Your task to perform on an android device: turn off notifications settings in the gmail app Image 0: 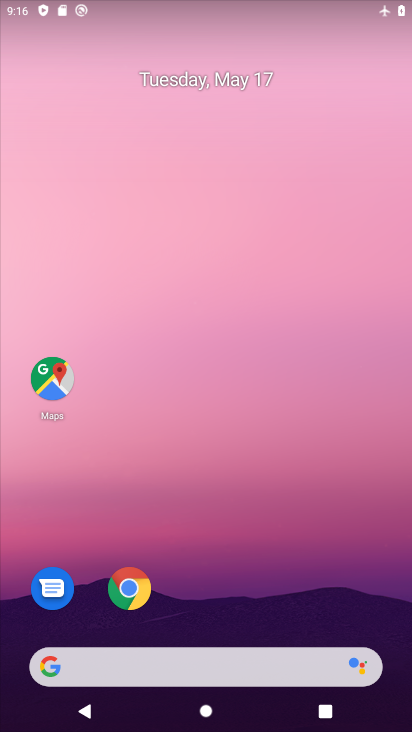
Step 0: drag from (221, 728) to (194, 209)
Your task to perform on an android device: turn off notifications settings in the gmail app Image 1: 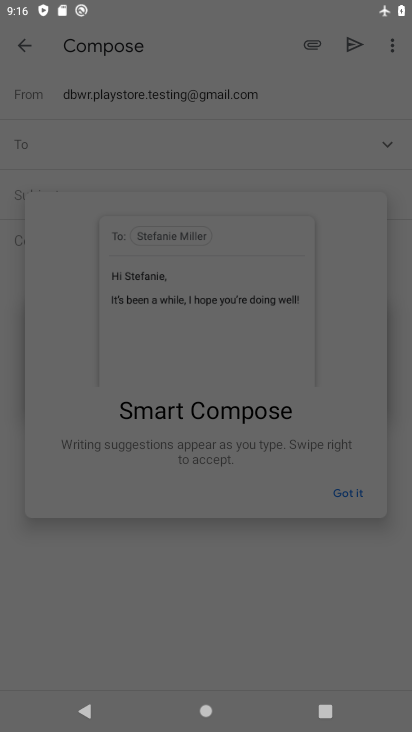
Step 1: press home button
Your task to perform on an android device: turn off notifications settings in the gmail app Image 2: 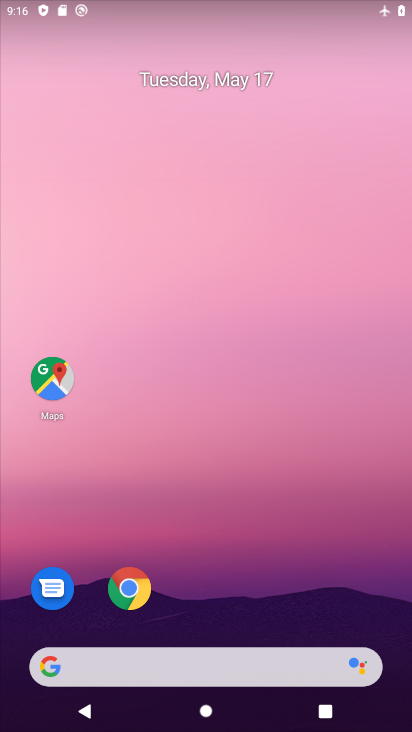
Step 2: drag from (225, 725) to (224, 120)
Your task to perform on an android device: turn off notifications settings in the gmail app Image 3: 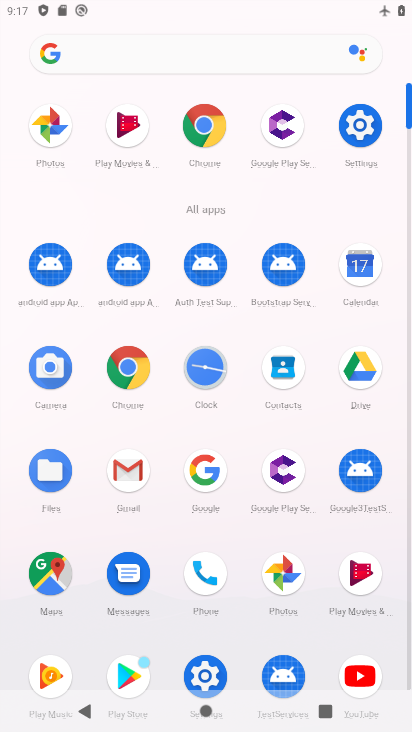
Step 3: click (129, 479)
Your task to perform on an android device: turn off notifications settings in the gmail app Image 4: 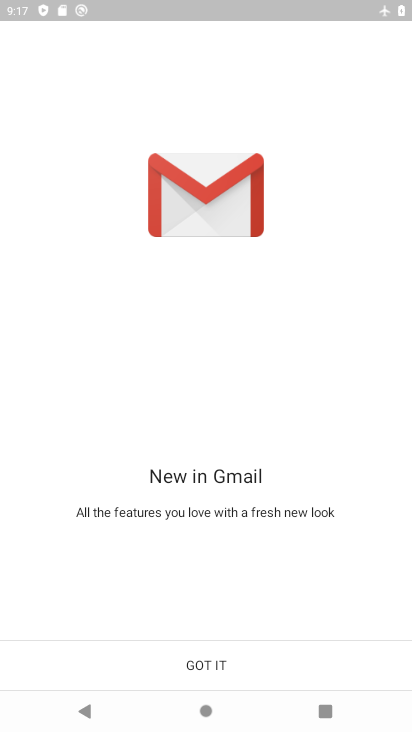
Step 4: click (206, 662)
Your task to perform on an android device: turn off notifications settings in the gmail app Image 5: 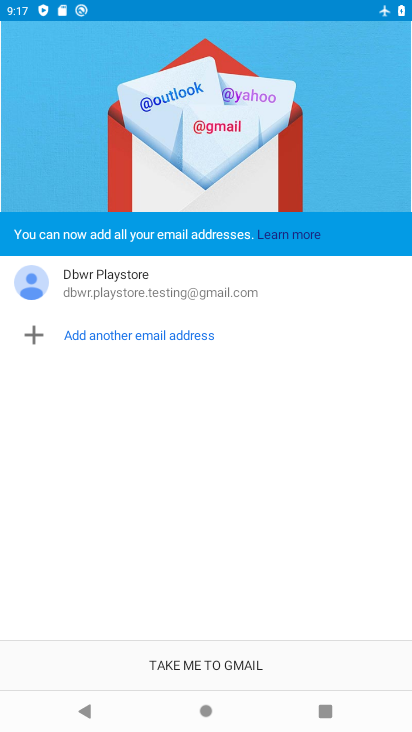
Step 5: click (206, 662)
Your task to perform on an android device: turn off notifications settings in the gmail app Image 6: 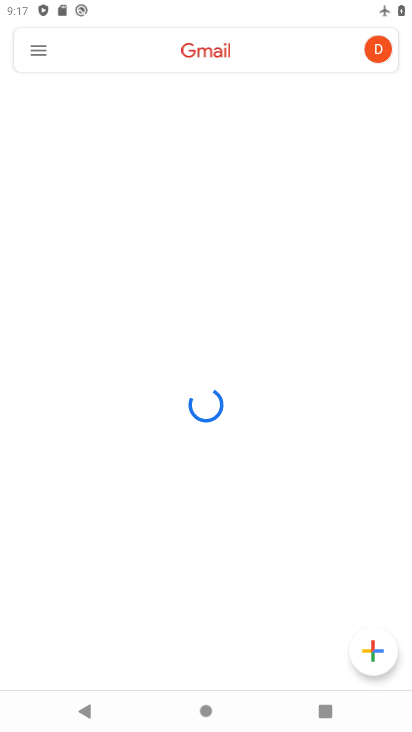
Step 6: click (39, 52)
Your task to perform on an android device: turn off notifications settings in the gmail app Image 7: 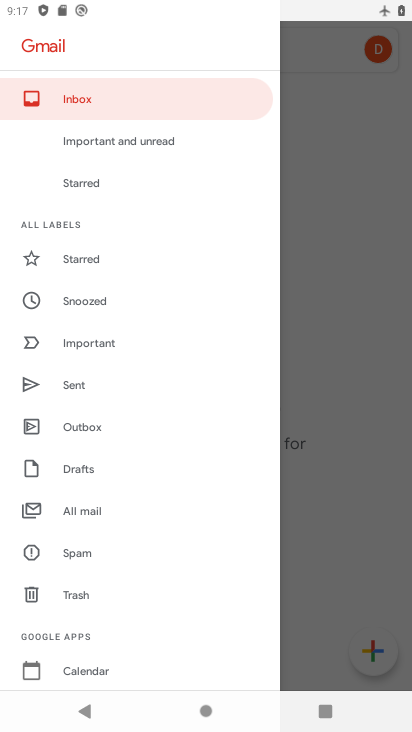
Step 7: drag from (109, 649) to (116, 320)
Your task to perform on an android device: turn off notifications settings in the gmail app Image 8: 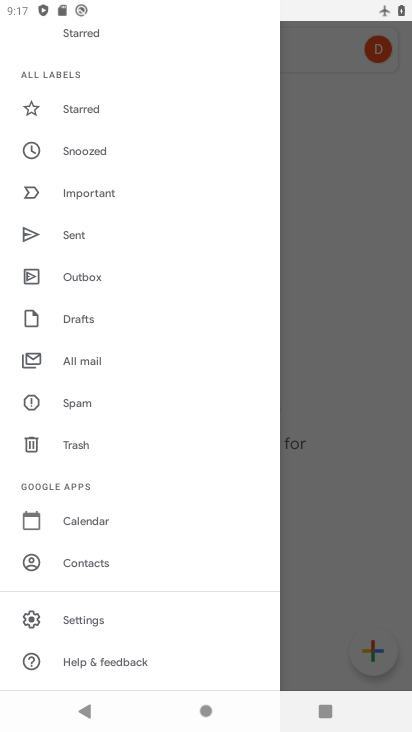
Step 8: click (89, 618)
Your task to perform on an android device: turn off notifications settings in the gmail app Image 9: 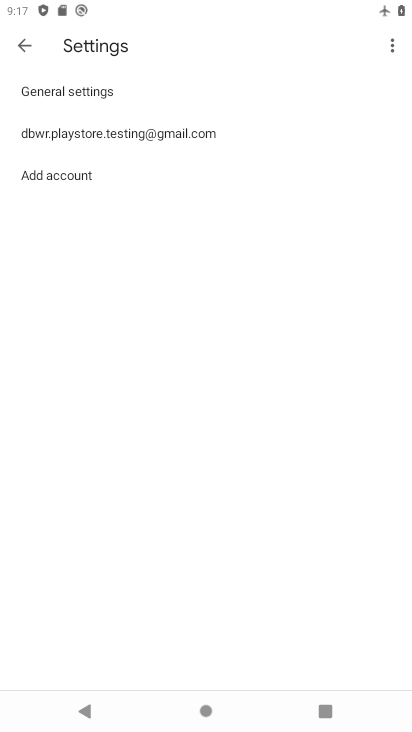
Step 9: click (136, 131)
Your task to perform on an android device: turn off notifications settings in the gmail app Image 10: 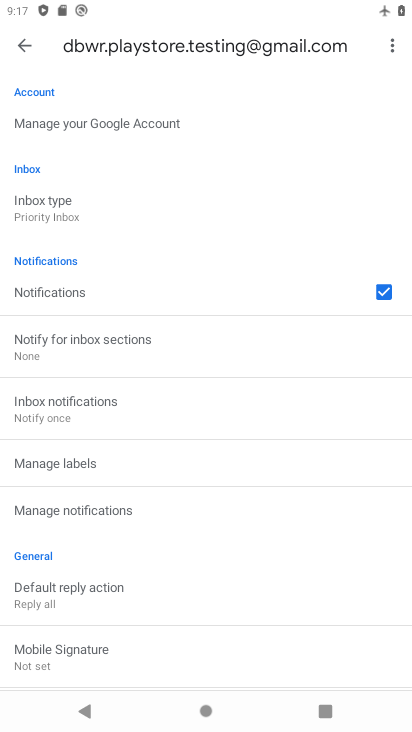
Step 10: click (386, 287)
Your task to perform on an android device: turn off notifications settings in the gmail app Image 11: 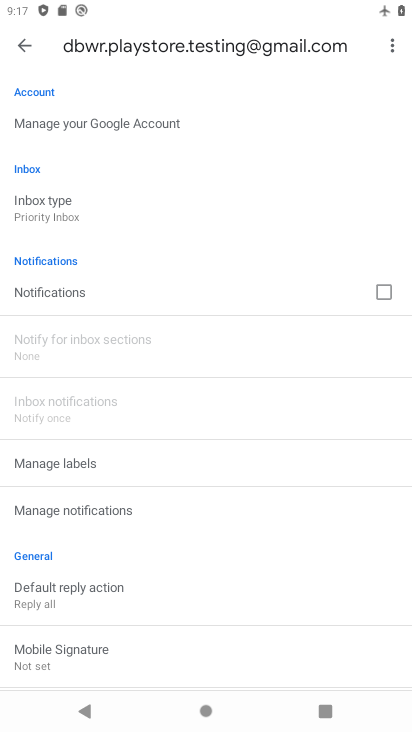
Step 11: task complete